Your task to perform on an android device: turn pop-ups on in chrome Image 0: 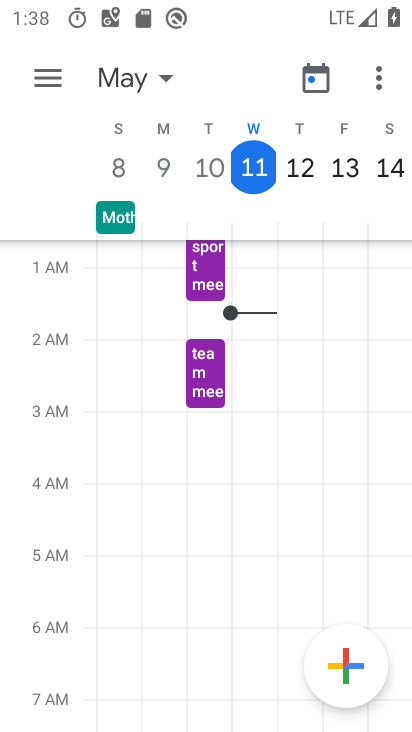
Step 0: press home button
Your task to perform on an android device: turn pop-ups on in chrome Image 1: 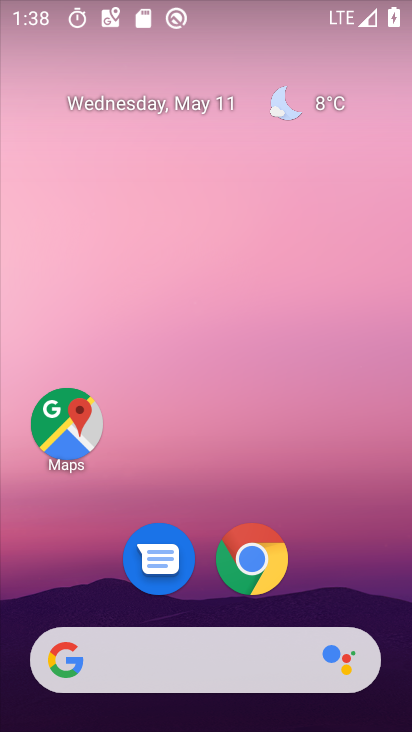
Step 1: click (255, 556)
Your task to perform on an android device: turn pop-ups on in chrome Image 2: 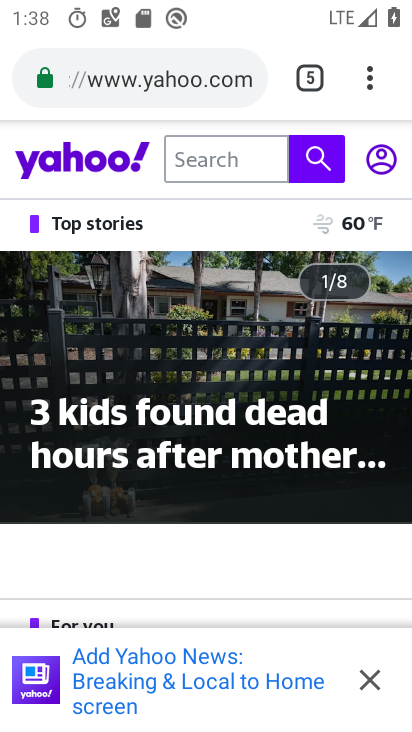
Step 2: click (370, 85)
Your task to perform on an android device: turn pop-ups on in chrome Image 3: 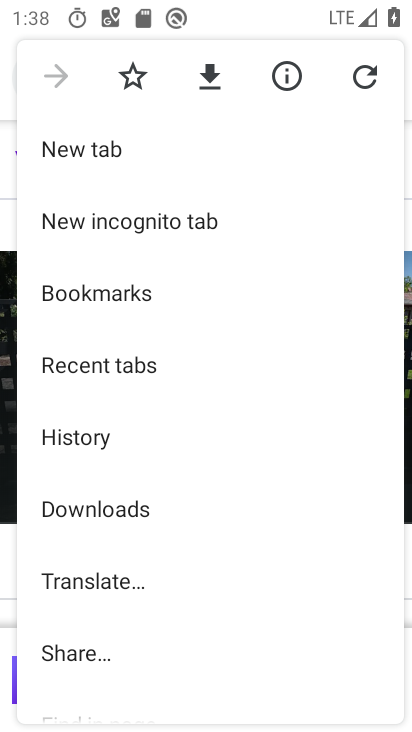
Step 3: drag from (82, 671) to (103, 224)
Your task to perform on an android device: turn pop-ups on in chrome Image 4: 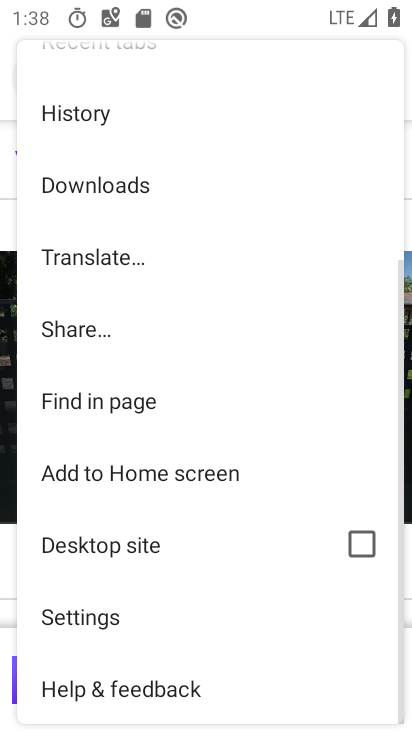
Step 4: click (75, 615)
Your task to perform on an android device: turn pop-ups on in chrome Image 5: 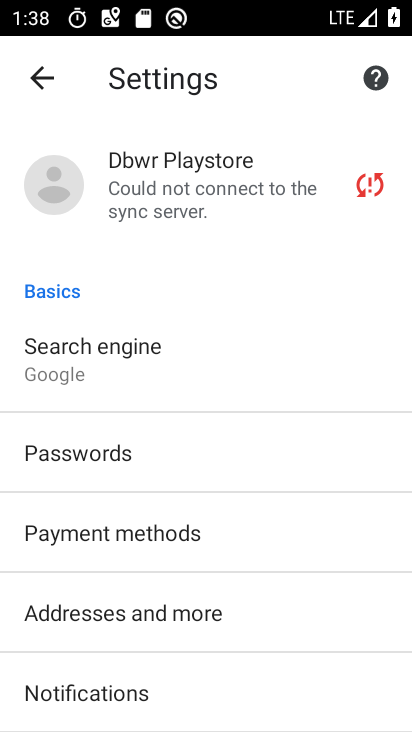
Step 5: drag from (109, 650) to (129, 246)
Your task to perform on an android device: turn pop-ups on in chrome Image 6: 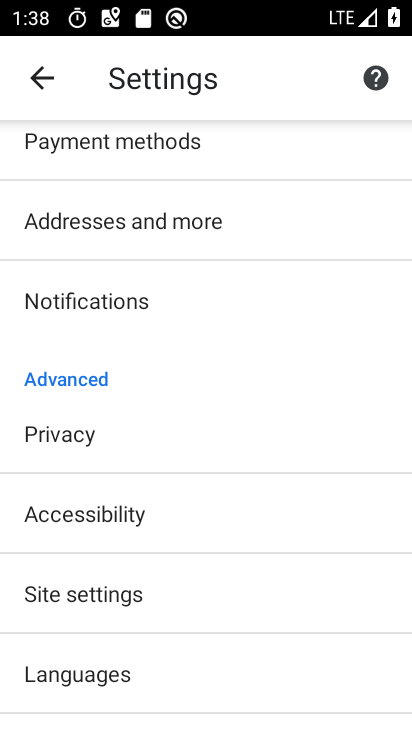
Step 6: click (89, 590)
Your task to perform on an android device: turn pop-ups on in chrome Image 7: 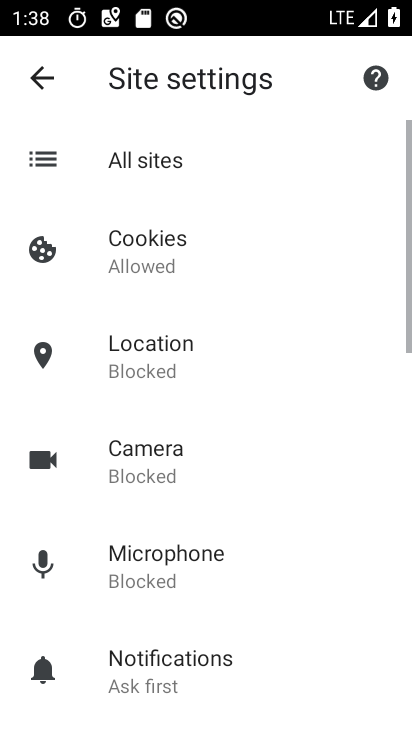
Step 7: drag from (145, 683) to (144, 293)
Your task to perform on an android device: turn pop-ups on in chrome Image 8: 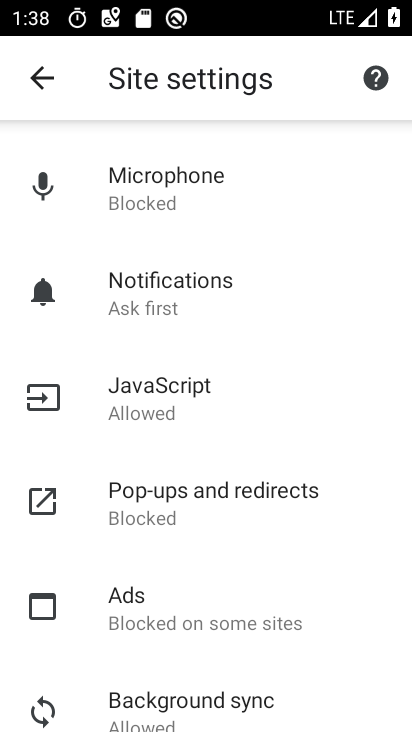
Step 8: drag from (152, 668) to (163, 433)
Your task to perform on an android device: turn pop-ups on in chrome Image 9: 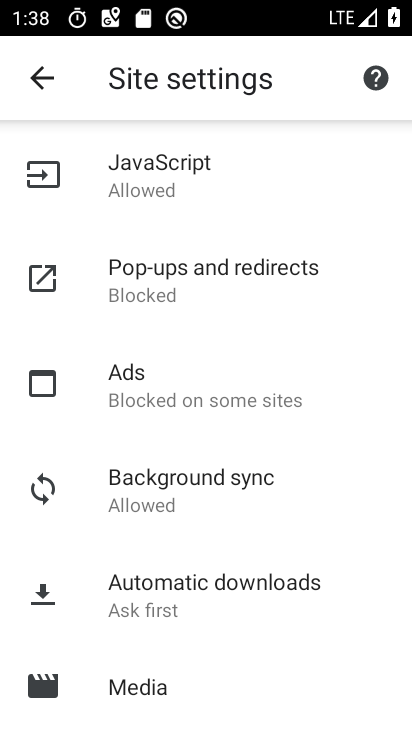
Step 9: click (144, 277)
Your task to perform on an android device: turn pop-ups on in chrome Image 10: 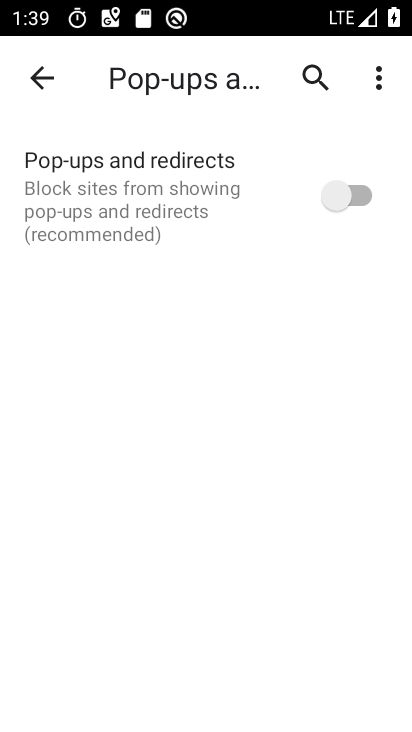
Step 10: click (355, 191)
Your task to perform on an android device: turn pop-ups on in chrome Image 11: 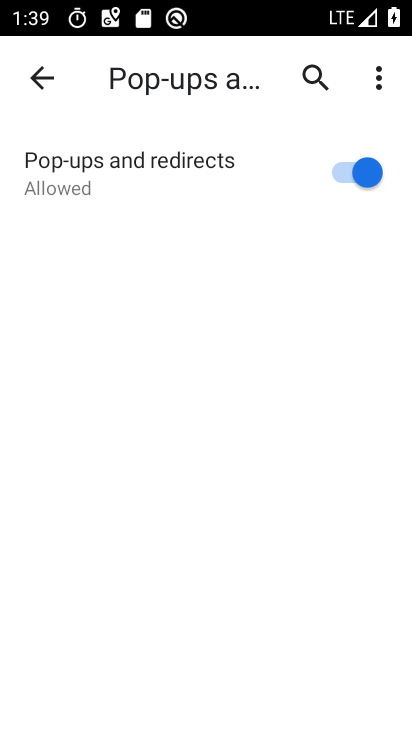
Step 11: task complete